Your task to perform on an android device: clear all cookies in the chrome app Image 0: 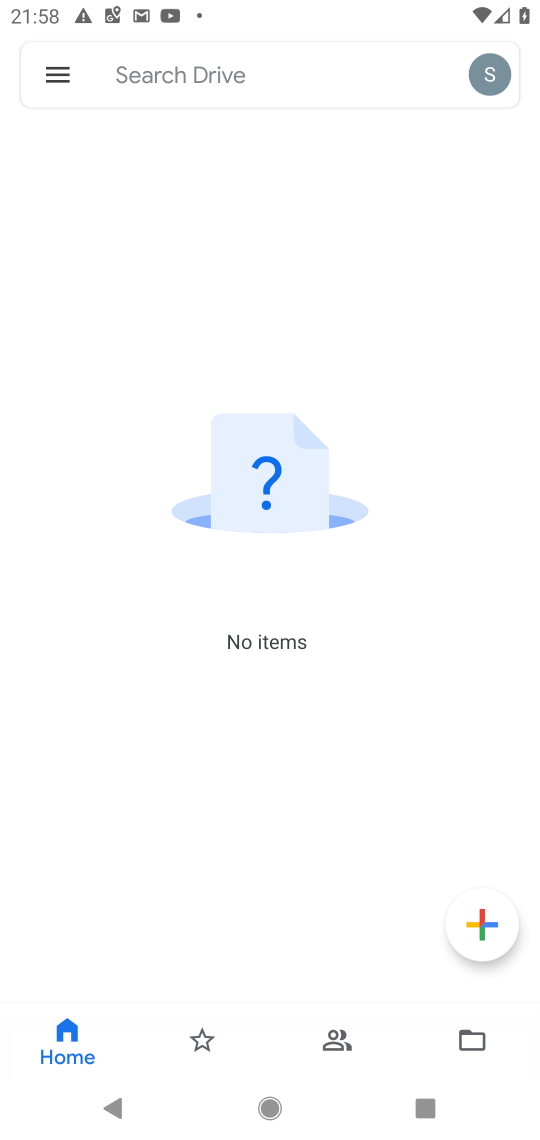
Step 0: press home button
Your task to perform on an android device: clear all cookies in the chrome app Image 1: 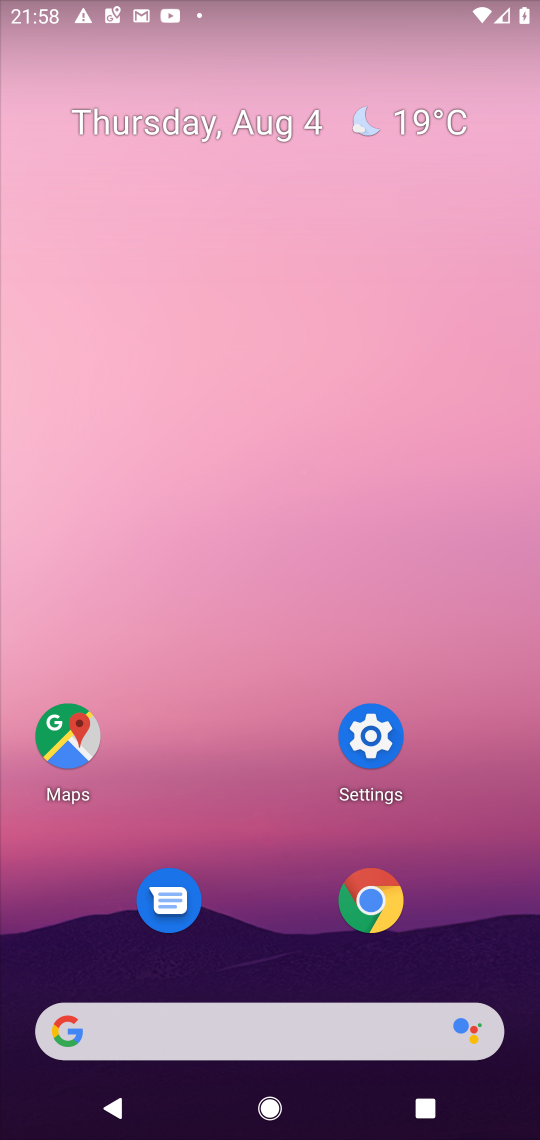
Step 1: click (368, 912)
Your task to perform on an android device: clear all cookies in the chrome app Image 2: 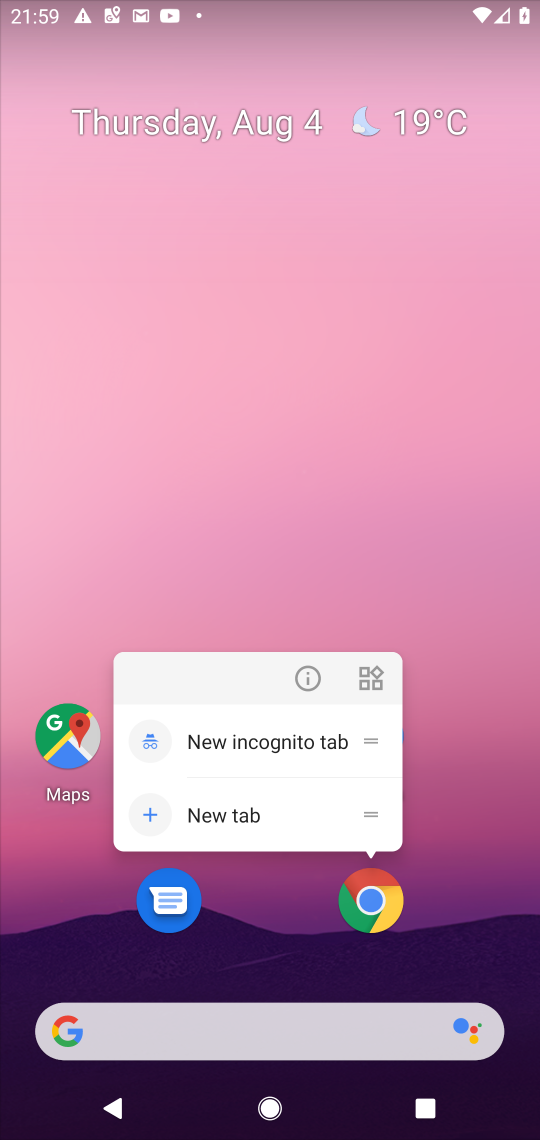
Step 2: click (371, 906)
Your task to perform on an android device: clear all cookies in the chrome app Image 3: 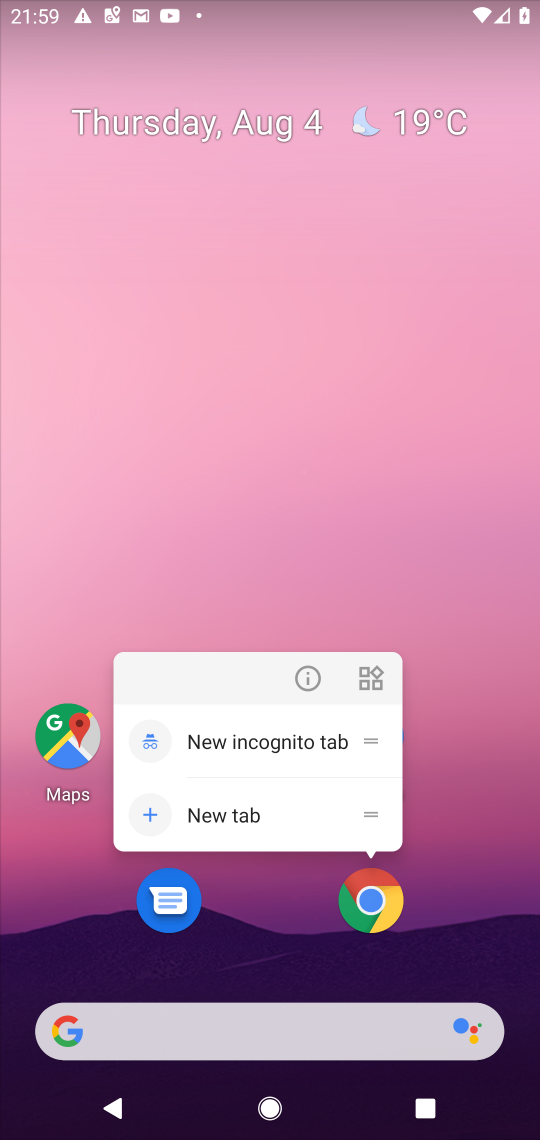
Step 3: click (371, 906)
Your task to perform on an android device: clear all cookies in the chrome app Image 4: 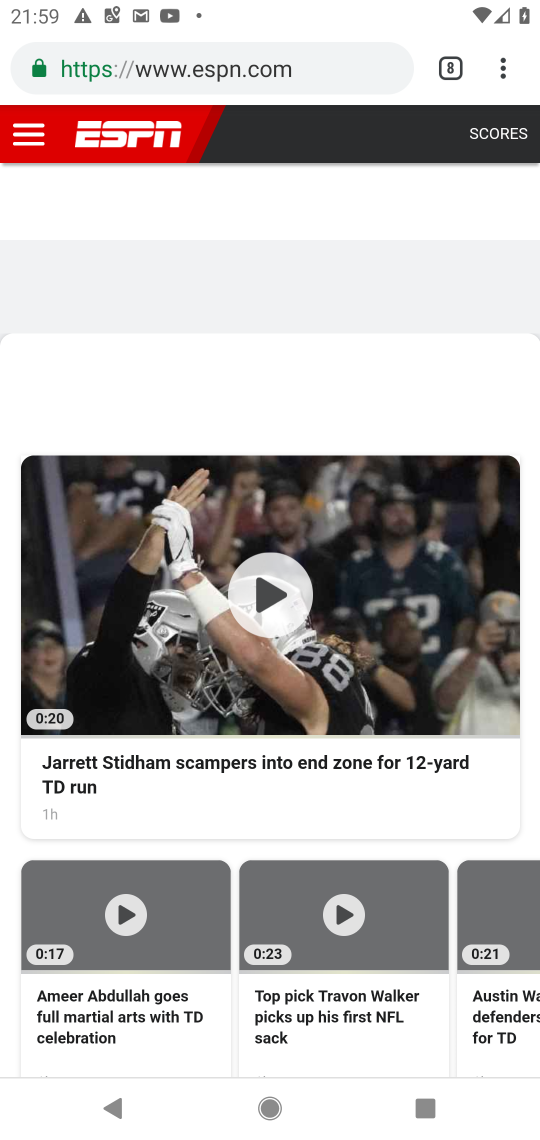
Step 4: drag from (499, 64) to (337, 900)
Your task to perform on an android device: clear all cookies in the chrome app Image 5: 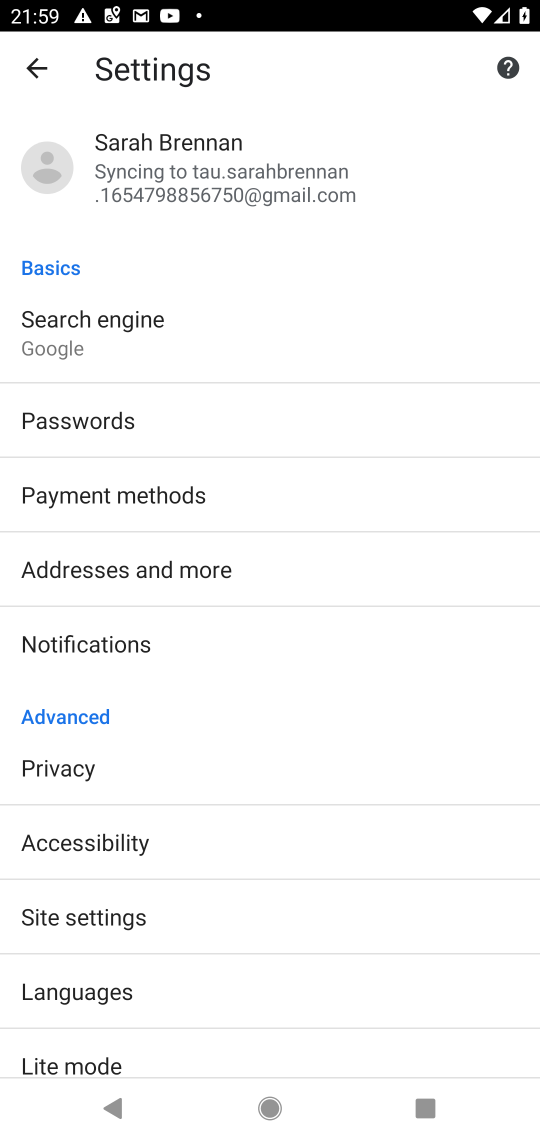
Step 5: click (77, 773)
Your task to perform on an android device: clear all cookies in the chrome app Image 6: 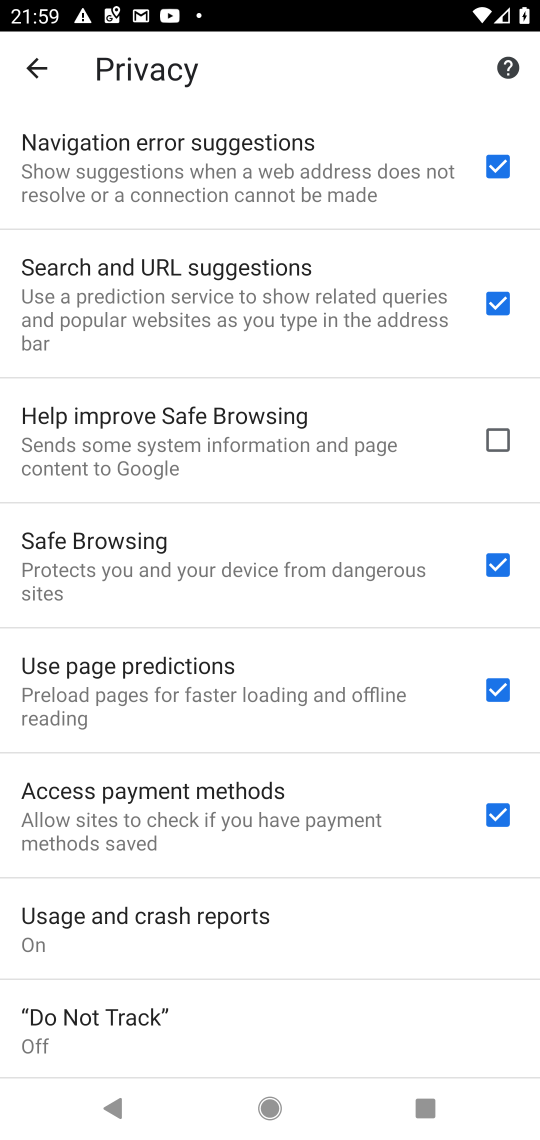
Step 6: drag from (288, 985) to (461, 162)
Your task to perform on an android device: clear all cookies in the chrome app Image 7: 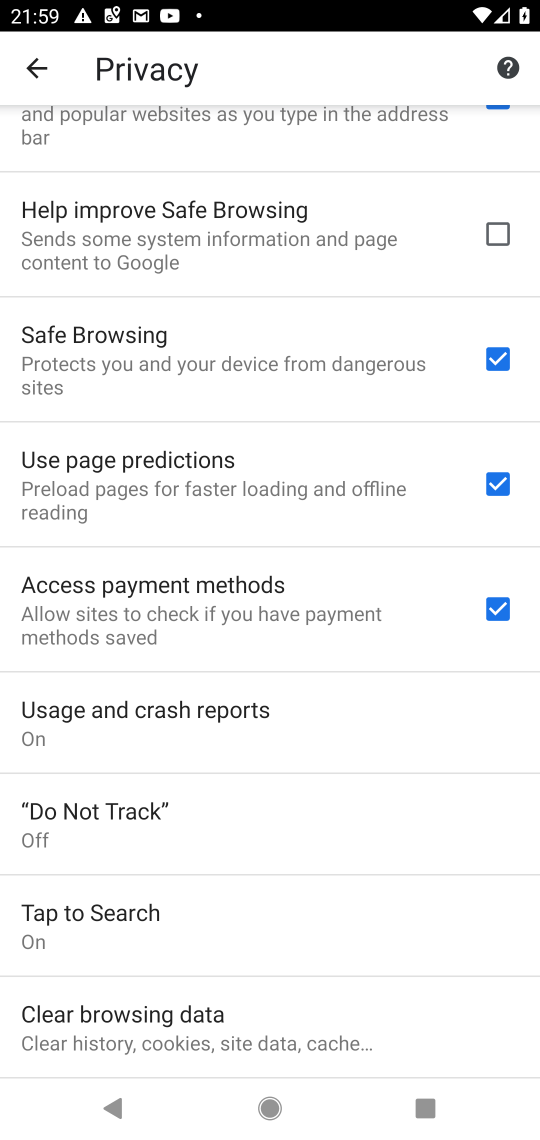
Step 7: click (222, 1038)
Your task to perform on an android device: clear all cookies in the chrome app Image 8: 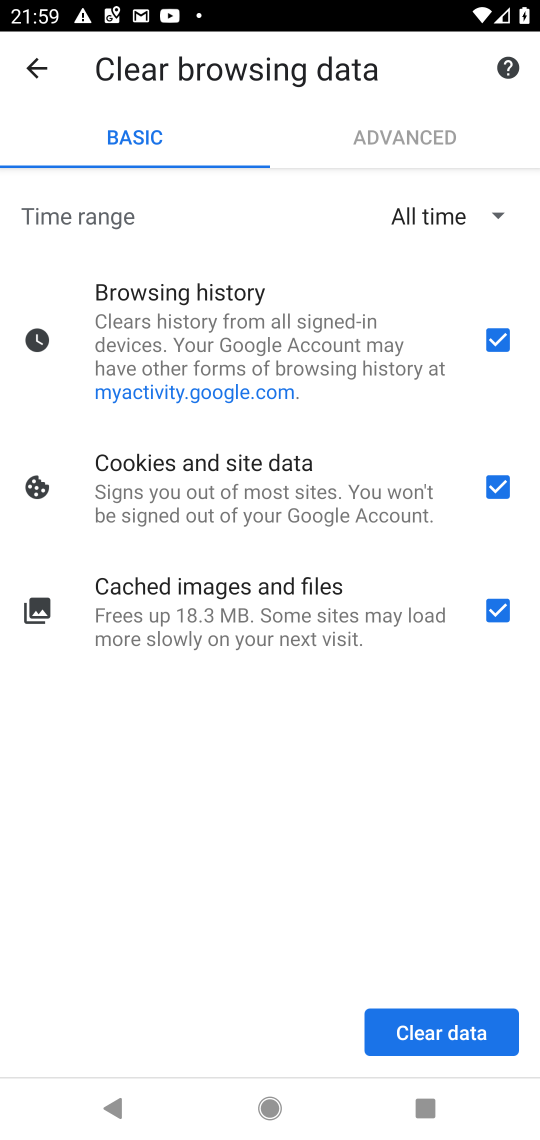
Step 8: click (499, 340)
Your task to perform on an android device: clear all cookies in the chrome app Image 9: 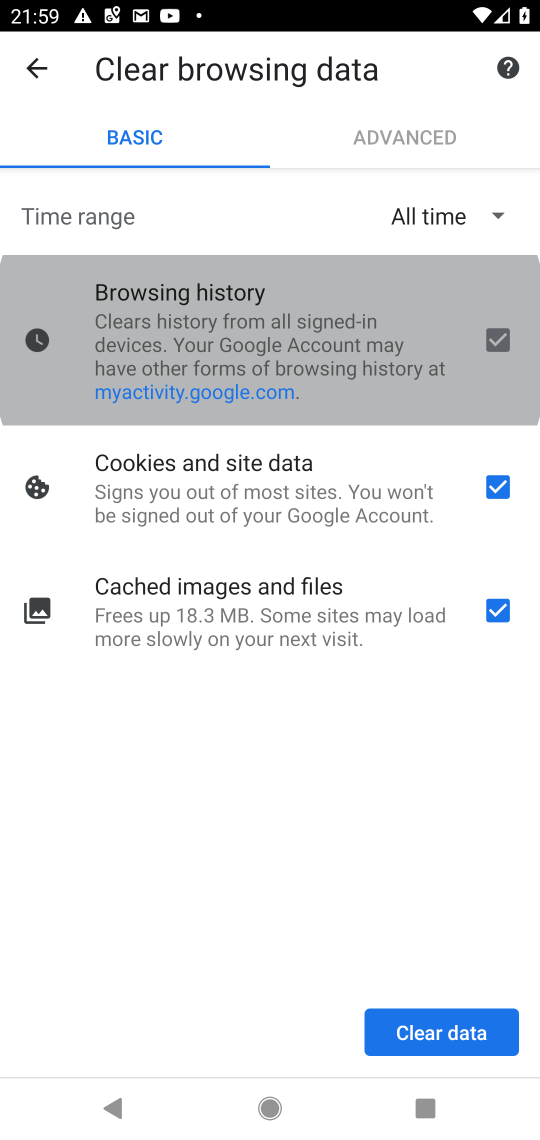
Step 9: click (497, 618)
Your task to perform on an android device: clear all cookies in the chrome app Image 10: 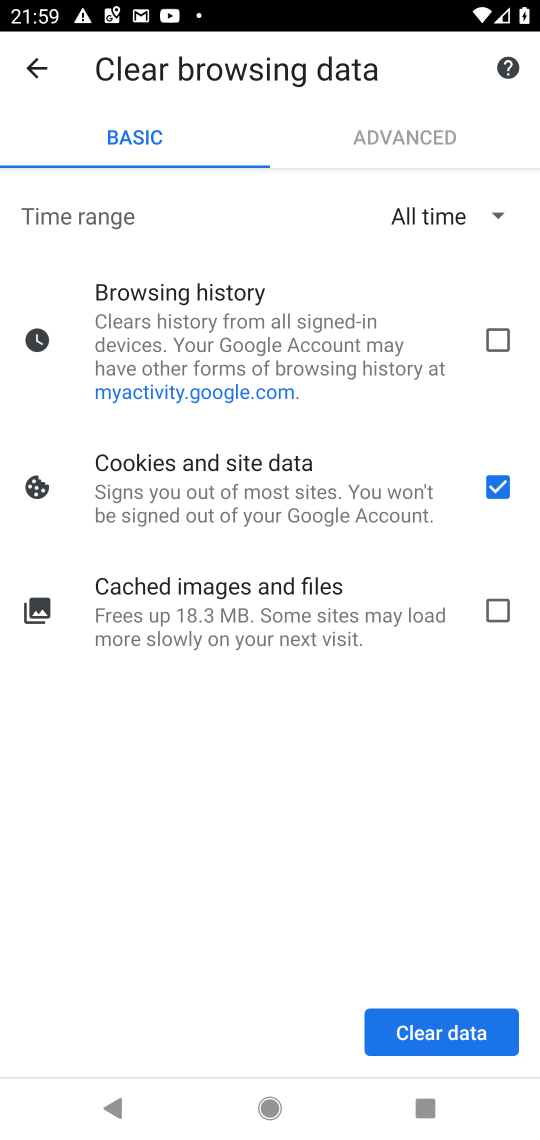
Step 10: click (458, 1029)
Your task to perform on an android device: clear all cookies in the chrome app Image 11: 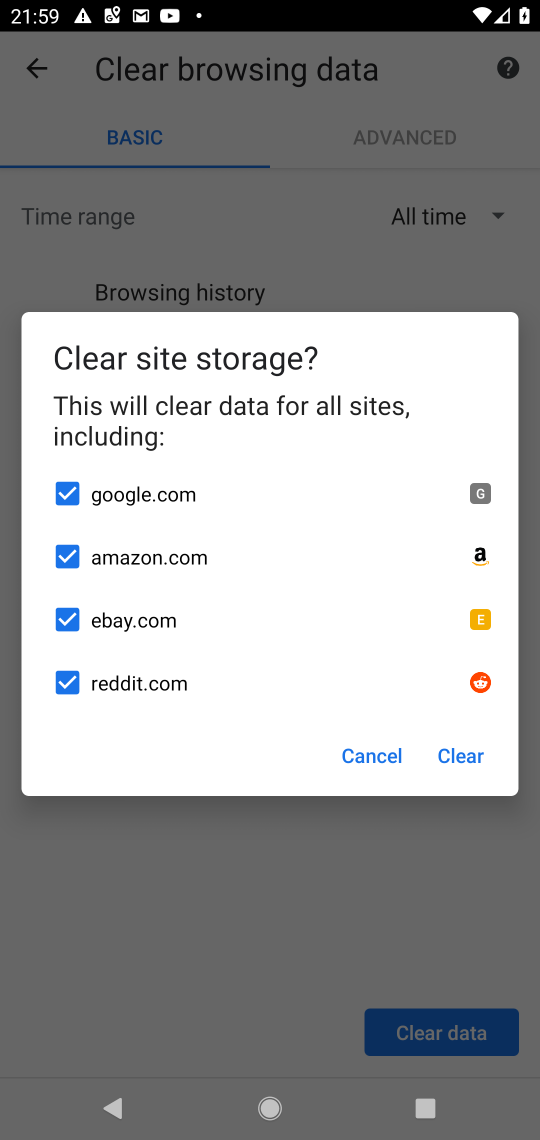
Step 11: click (469, 752)
Your task to perform on an android device: clear all cookies in the chrome app Image 12: 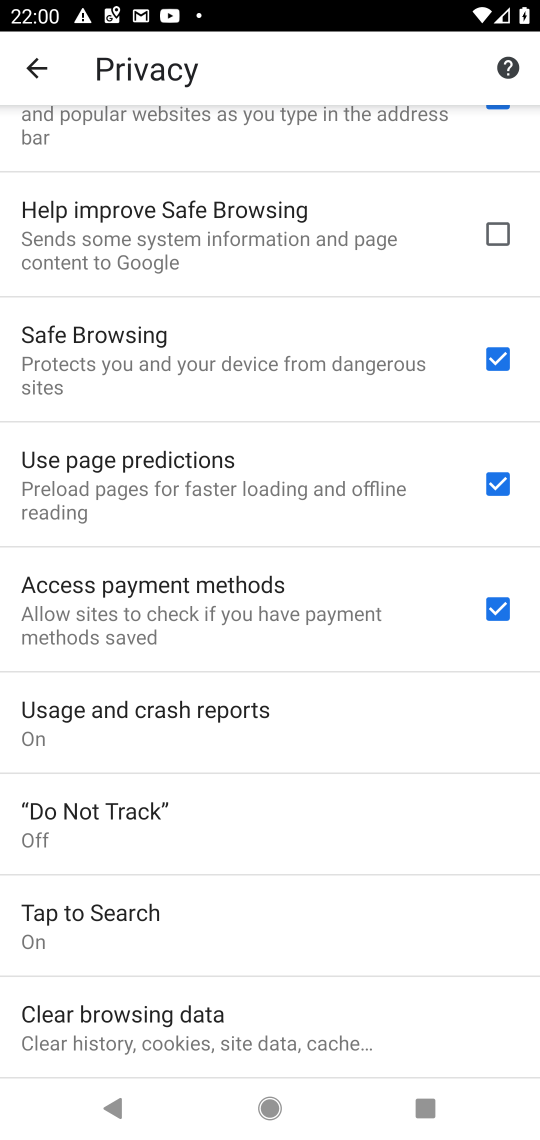
Step 12: task complete